Your task to perform on an android device: Open CNN.com Image 0: 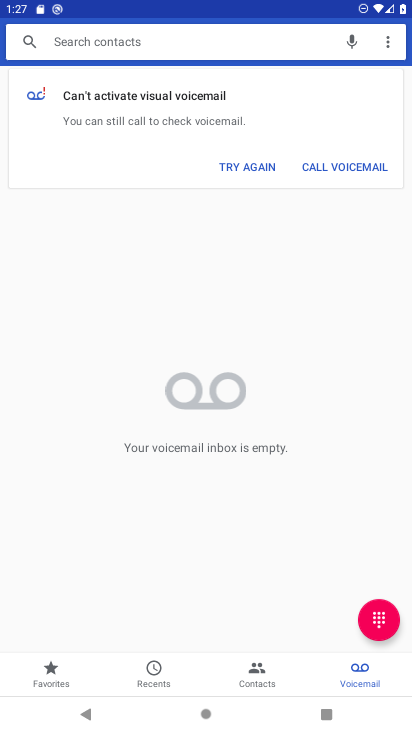
Step 0: press home button
Your task to perform on an android device: Open CNN.com Image 1: 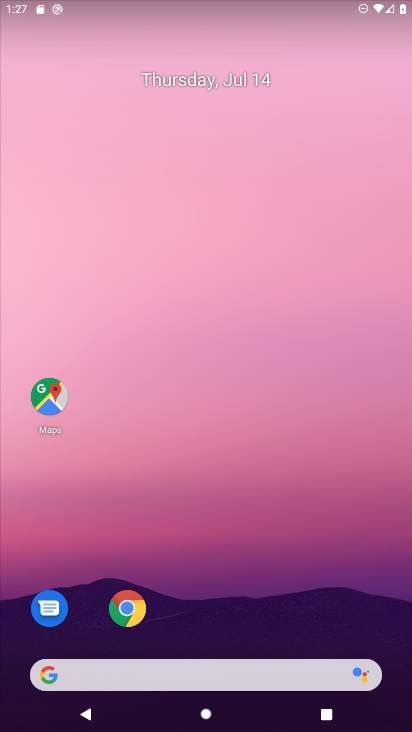
Step 1: drag from (246, 725) to (237, 135)
Your task to perform on an android device: Open CNN.com Image 2: 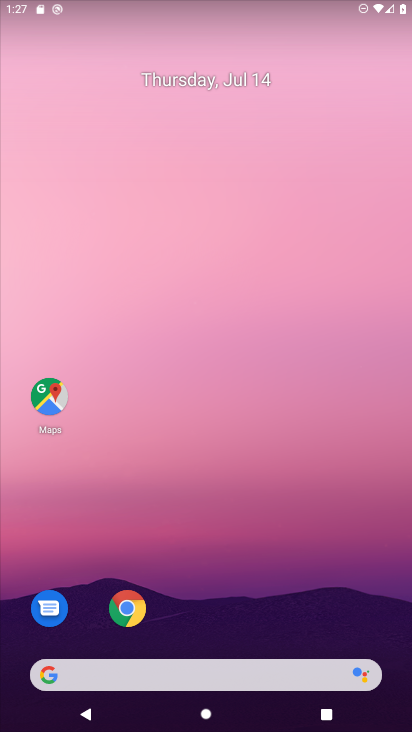
Step 2: click (128, 603)
Your task to perform on an android device: Open CNN.com Image 3: 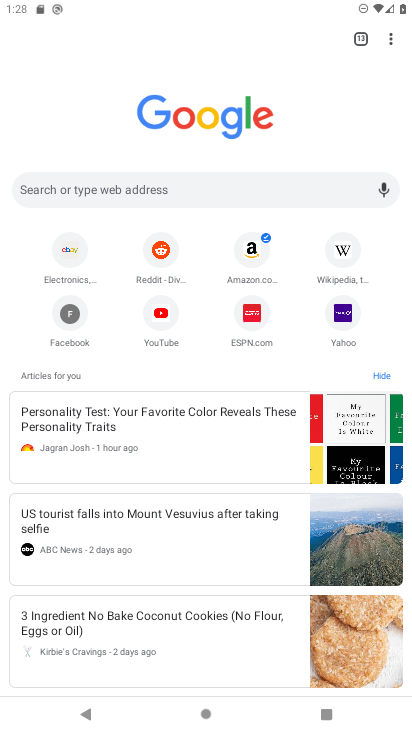
Step 3: click (234, 188)
Your task to perform on an android device: Open CNN.com Image 4: 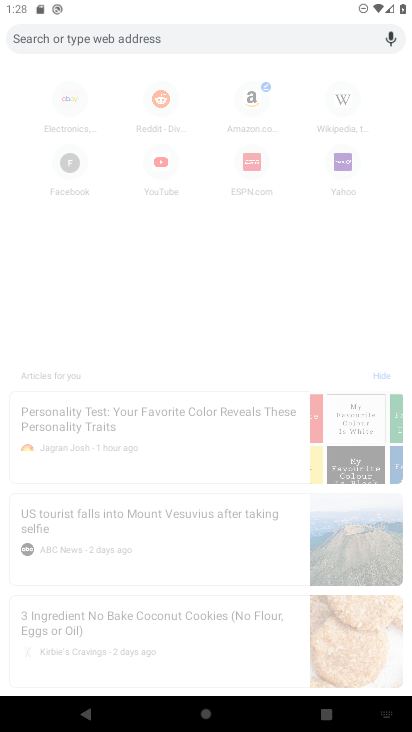
Step 4: type "CNN.com"
Your task to perform on an android device: Open CNN.com Image 5: 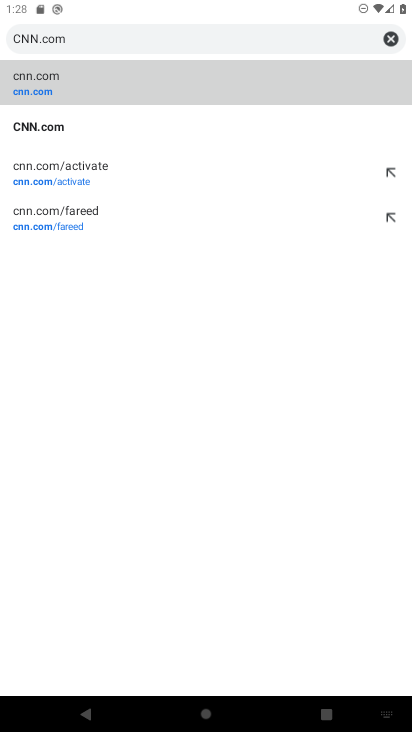
Step 5: click (42, 81)
Your task to perform on an android device: Open CNN.com Image 6: 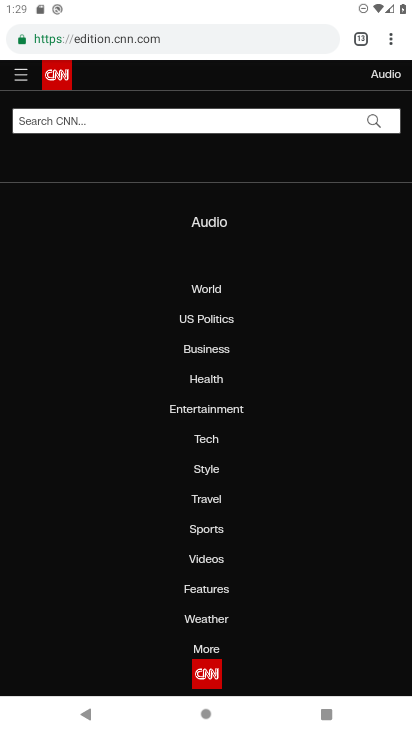
Step 6: task complete